Your task to perform on an android device: make emails show in primary in the gmail app Image 0: 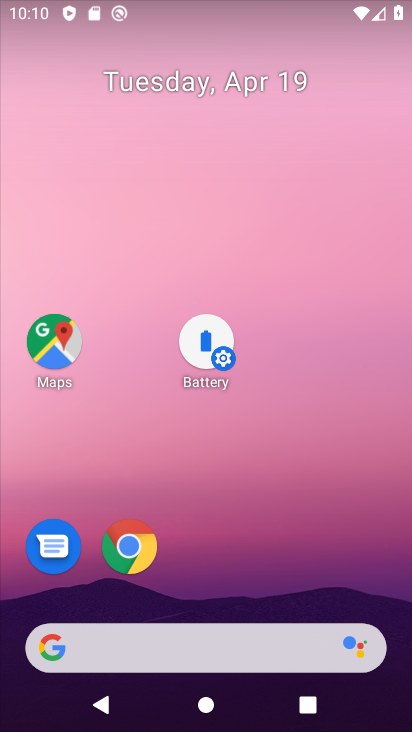
Step 0: drag from (220, 373) to (234, 60)
Your task to perform on an android device: make emails show in primary in the gmail app Image 1: 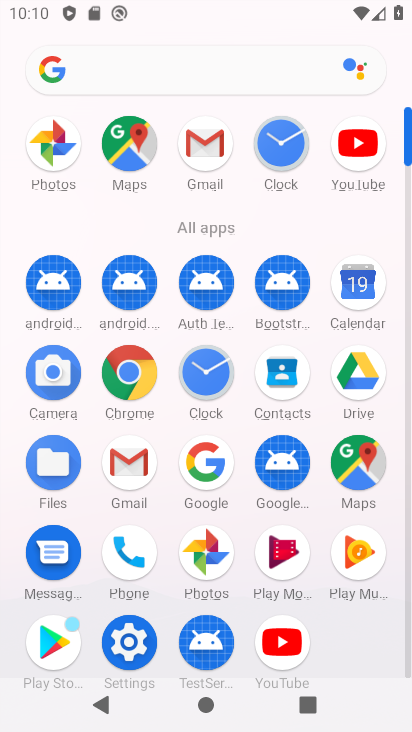
Step 1: click (205, 150)
Your task to perform on an android device: make emails show in primary in the gmail app Image 2: 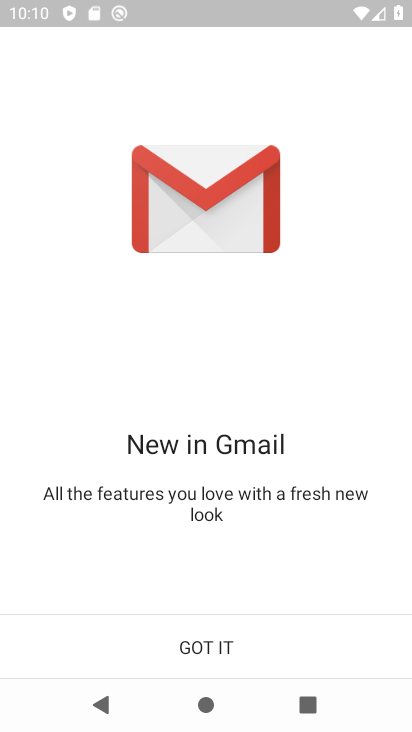
Step 2: click (232, 648)
Your task to perform on an android device: make emails show in primary in the gmail app Image 3: 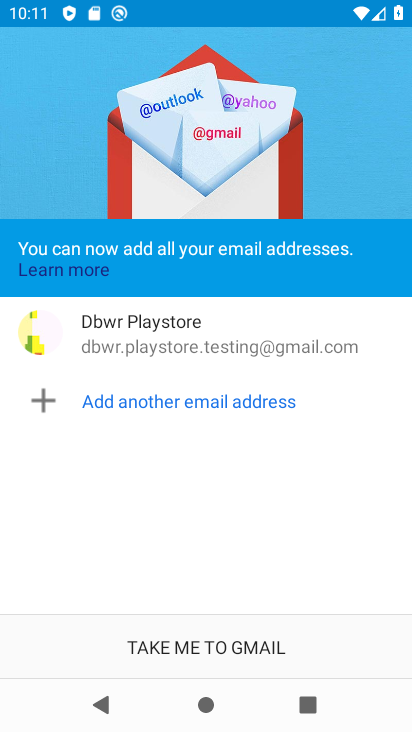
Step 3: click (224, 648)
Your task to perform on an android device: make emails show in primary in the gmail app Image 4: 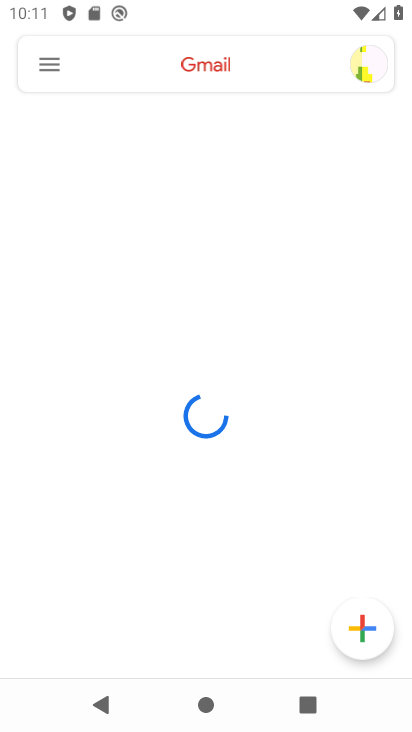
Step 4: click (49, 66)
Your task to perform on an android device: make emails show in primary in the gmail app Image 5: 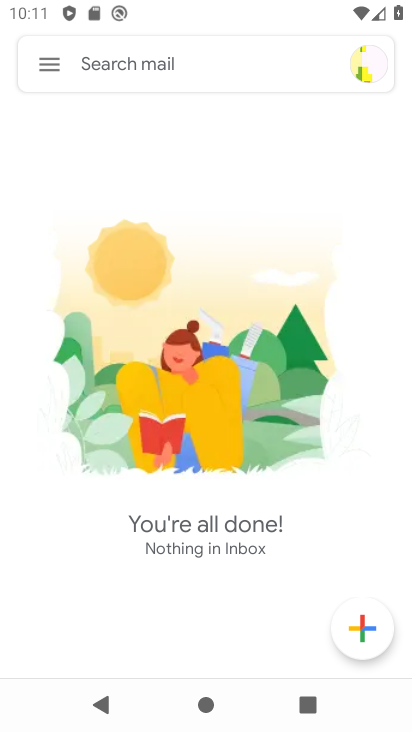
Step 5: click (47, 54)
Your task to perform on an android device: make emails show in primary in the gmail app Image 6: 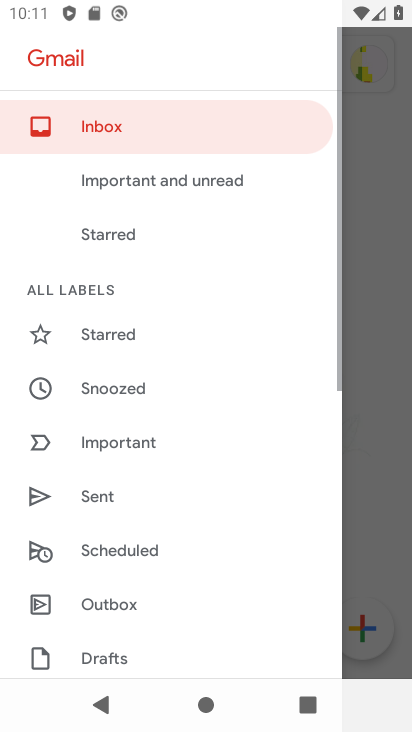
Step 6: drag from (192, 454) to (261, 66)
Your task to perform on an android device: make emails show in primary in the gmail app Image 7: 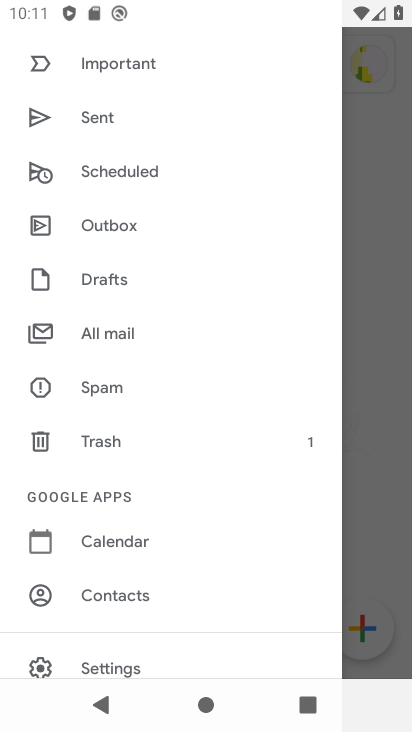
Step 7: click (129, 664)
Your task to perform on an android device: make emails show in primary in the gmail app Image 8: 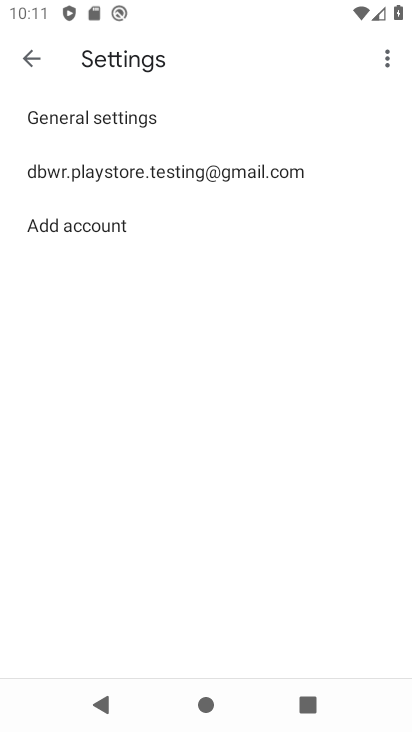
Step 8: click (125, 174)
Your task to perform on an android device: make emails show in primary in the gmail app Image 9: 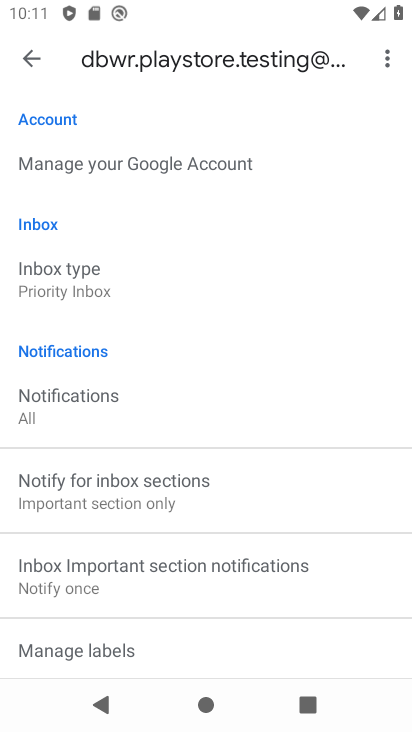
Step 9: task complete